Your task to perform on an android device: Go to Yahoo.com Image 0: 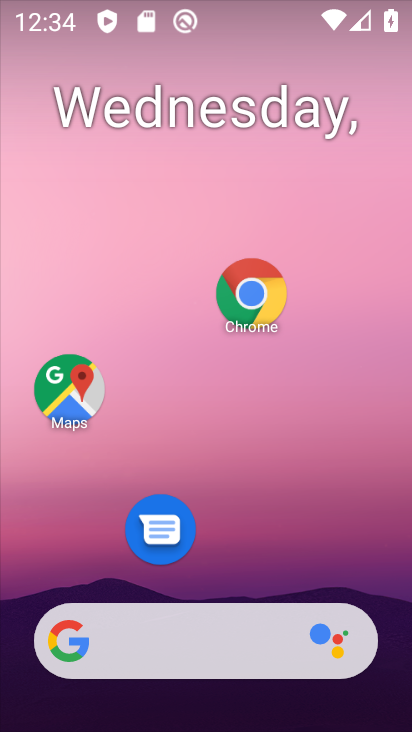
Step 0: click (255, 318)
Your task to perform on an android device: Go to Yahoo.com Image 1: 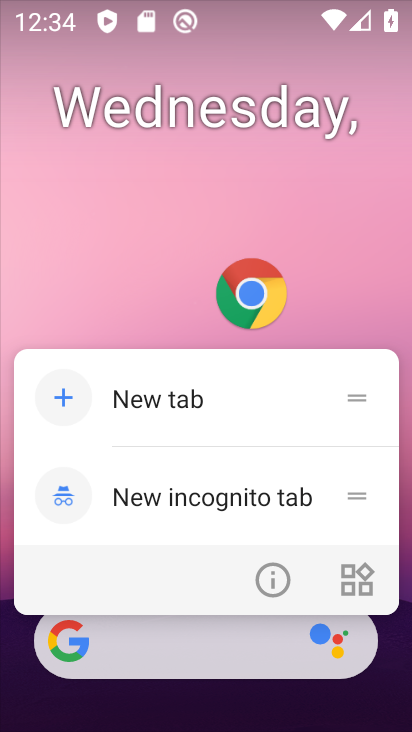
Step 1: click (255, 318)
Your task to perform on an android device: Go to Yahoo.com Image 2: 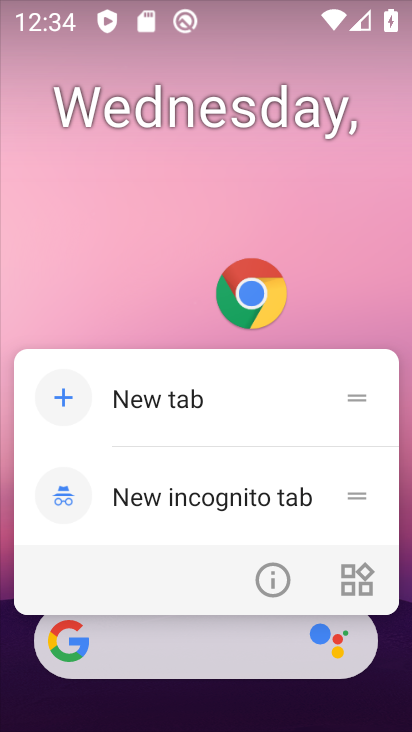
Step 2: click (236, 286)
Your task to perform on an android device: Go to Yahoo.com Image 3: 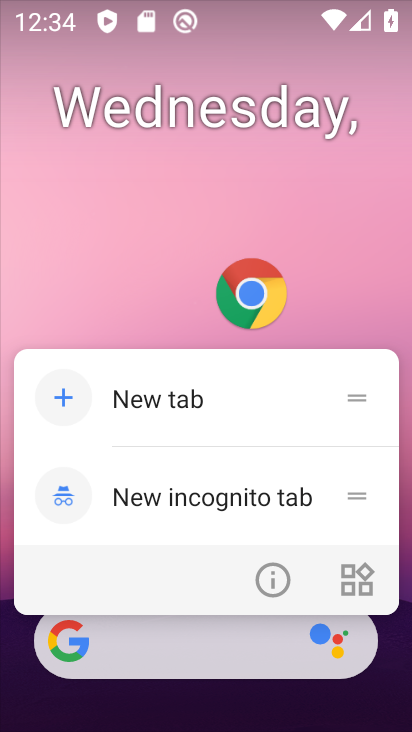
Step 3: click (266, 290)
Your task to perform on an android device: Go to Yahoo.com Image 4: 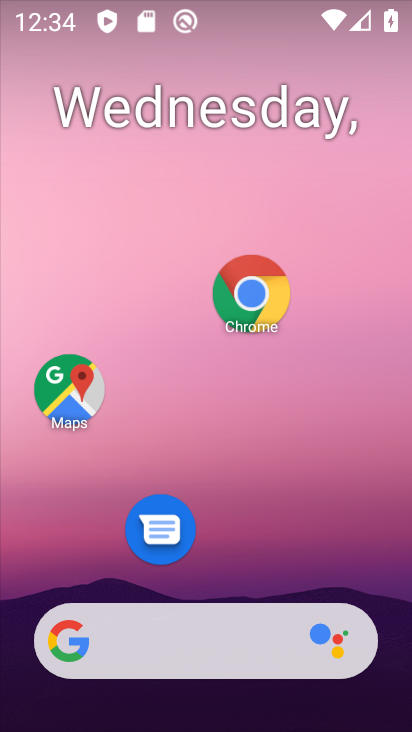
Step 4: click (266, 296)
Your task to perform on an android device: Go to Yahoo.com Image 5: 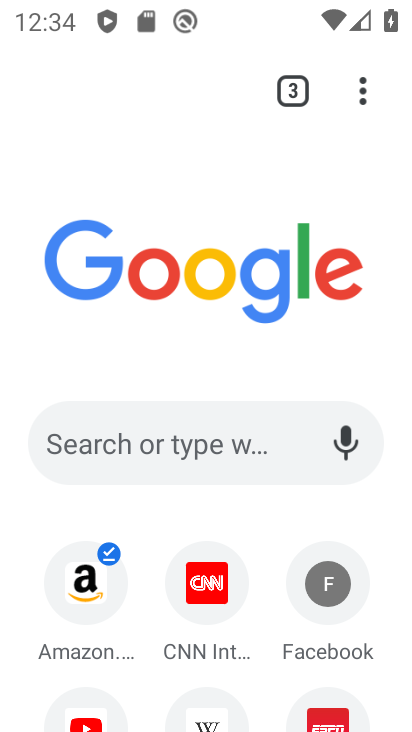
Step 5: drag from (214, 493) to (217, 326)
Your task to perform on an android device: Go to Yahoo.com Image 6: 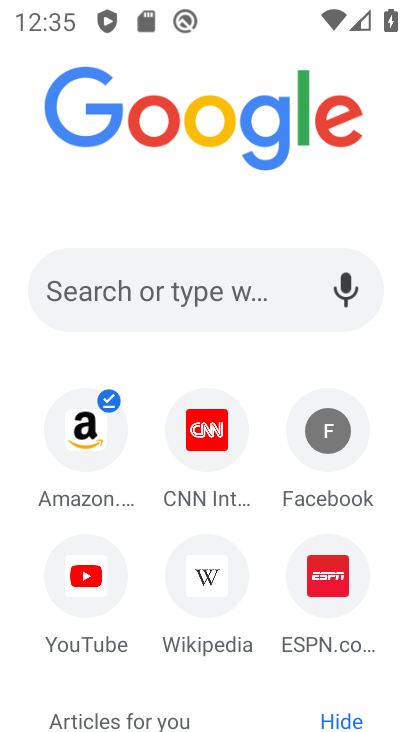
Step 6: click (171, 290)
Your task to perform on an android device: Go to Yahoo.com Image 7: 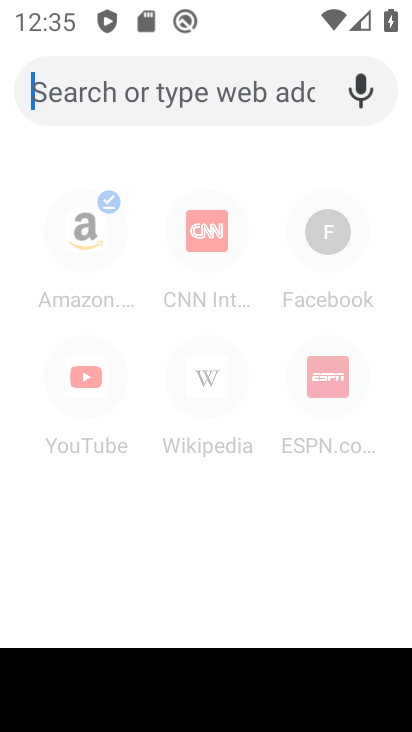
Step 7: type "yahoo.com"
Your task to perform on an android device: Go to Yahoo.com Image 8: 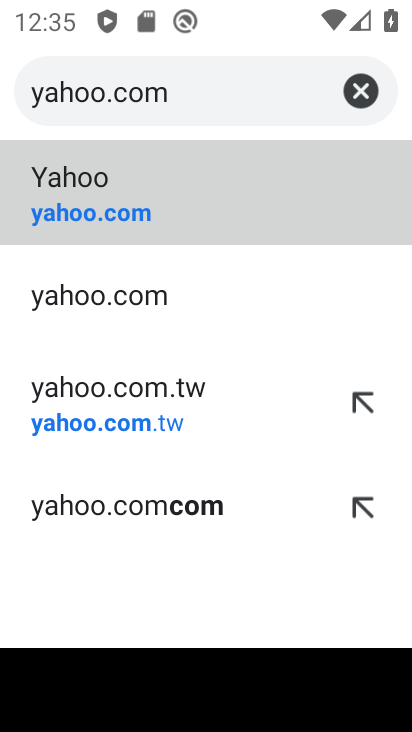
Step 8: click (288, 176)
Your task to perform on an android device: Go to Yahoo.com Image 9: 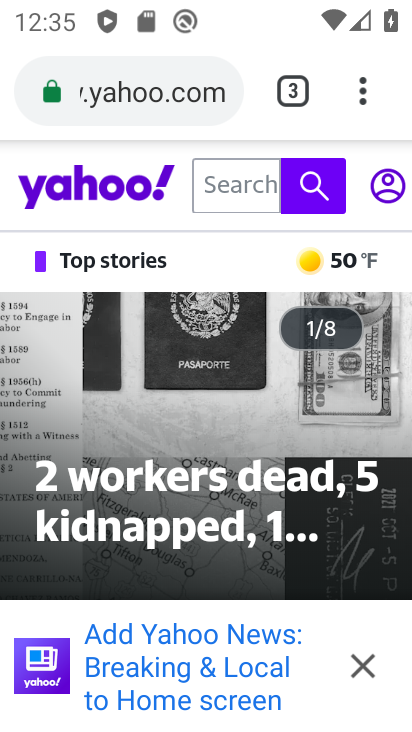
Step 9: task complete